Your task to perform on an android device: Do I have any events tomorrow? Image 0: 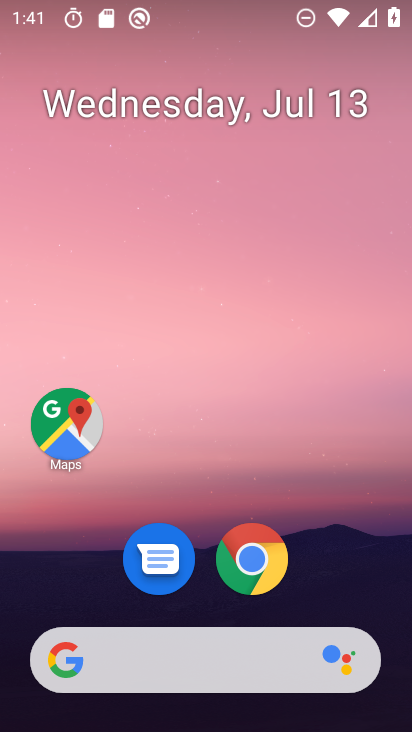
Step 0: drag from (201, 603) to (358, 59)
Your task to perform on an android device: Do I have any events tomorrow? Image 1: 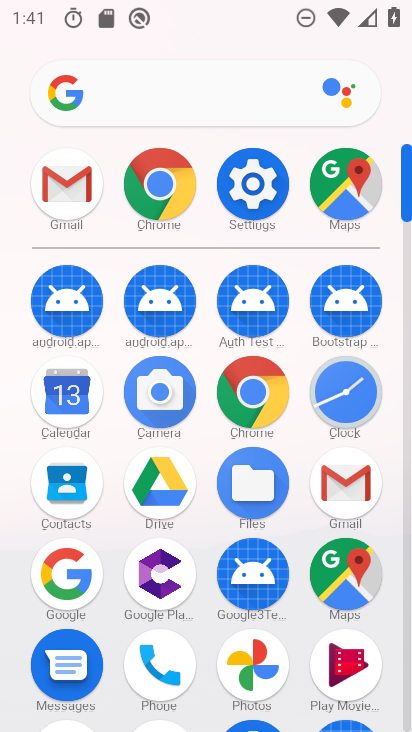
Step 1: click (79, 389)
Your task to perform on an android device: Do I have any events tomorrow? Image 2: 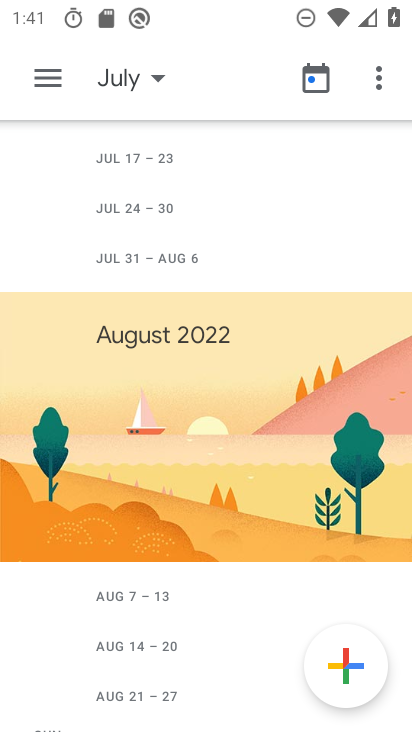
Step 2: click (150, 86)
Your task to perform on an android device: Do I have any events tomorrow? Image 3: 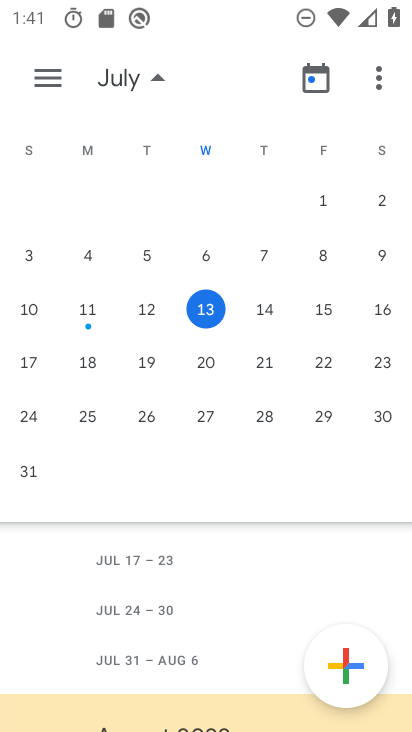
Step 3: click (215, 313)
Your task to perform on an android device: Do I have any events tomorrow? Image 4: 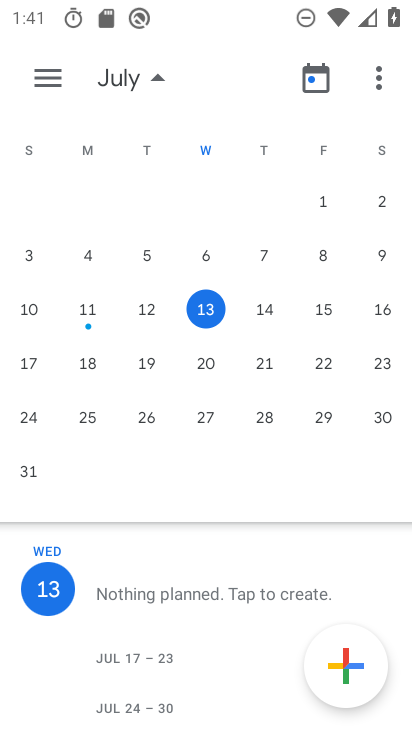
Step 4: click (270, 303)
Your task to perform on an android device: Do I have any events tomorrow? Image 5: 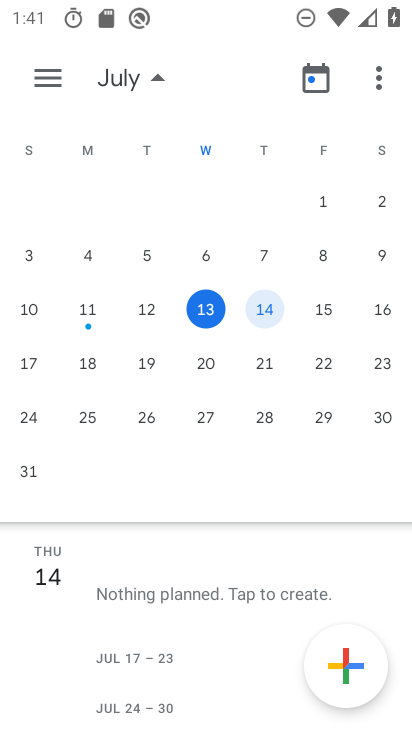
Step 5: task complete